Your task to perform on an android device: Do I have any events this weekend? Image 0: 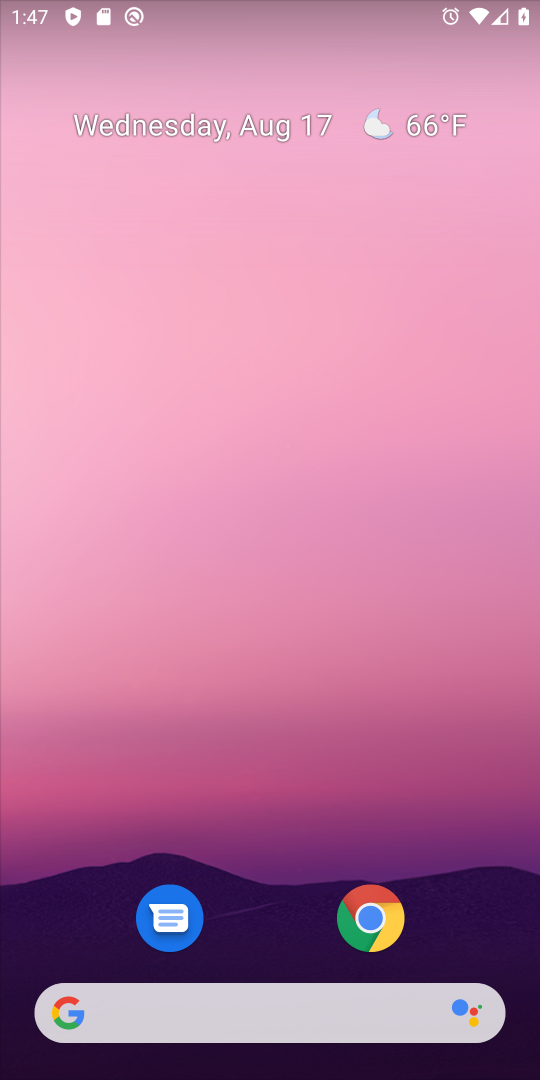
Step 0: drag from (261, 998) to (2, 332)
Your task to perform on an android device: Do I have any events this weekend? Image 1: 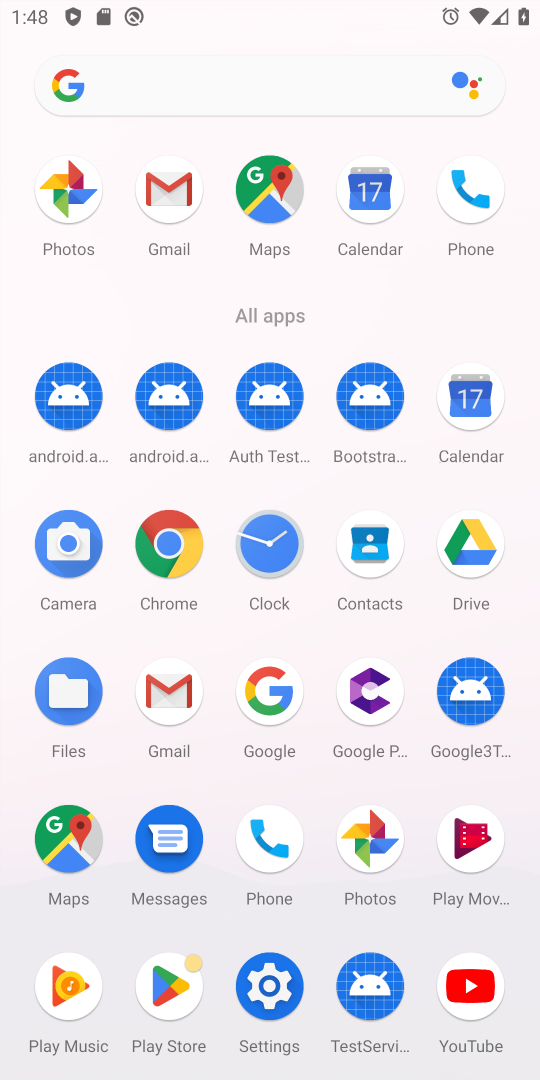
Step 1: click (453, 411)
Your task to perform on an android device: Do I have any events this weekend? Image 2: 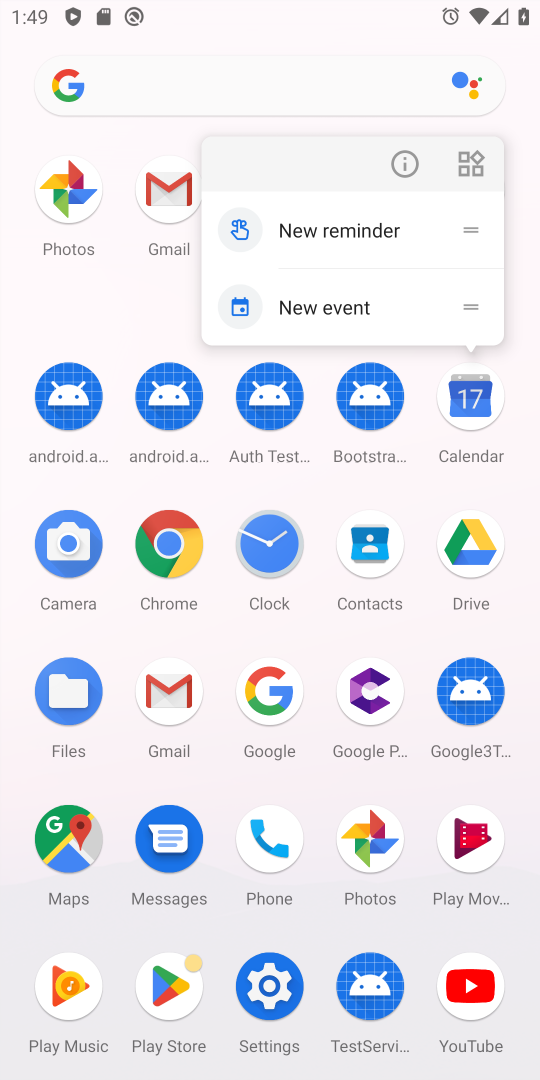
Step 2: click (452, 431)
Your task to perform on an android device: Do I have any events this weekend? Image 3: 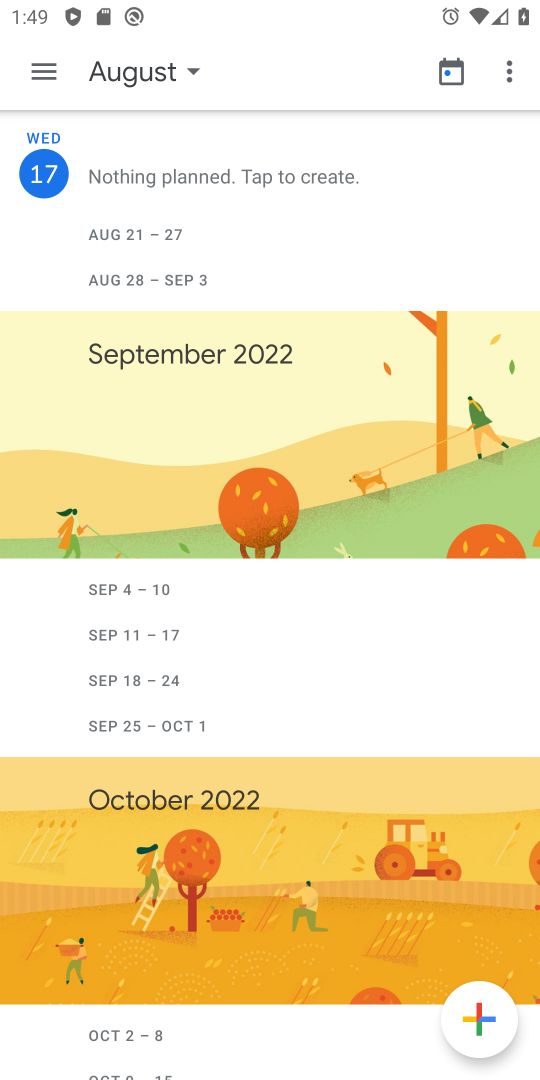
Step 3: click (40, 85)
Your task to perform on an android device: Do I have any events this weekend? Image 4: 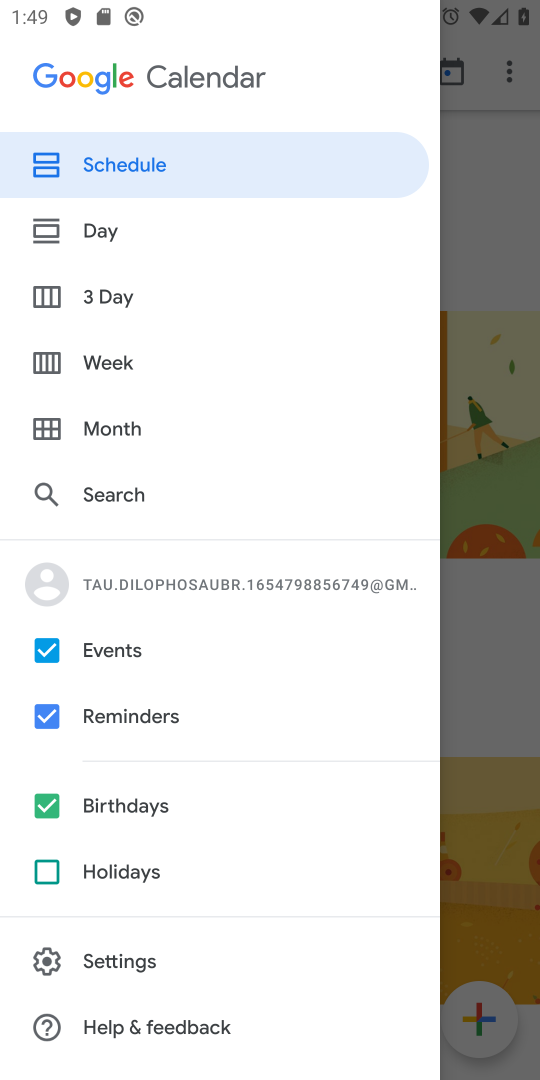
Step 4: click (118, 361)
Your task to perform on an android device: Do I have any events this weekend? Image 5: 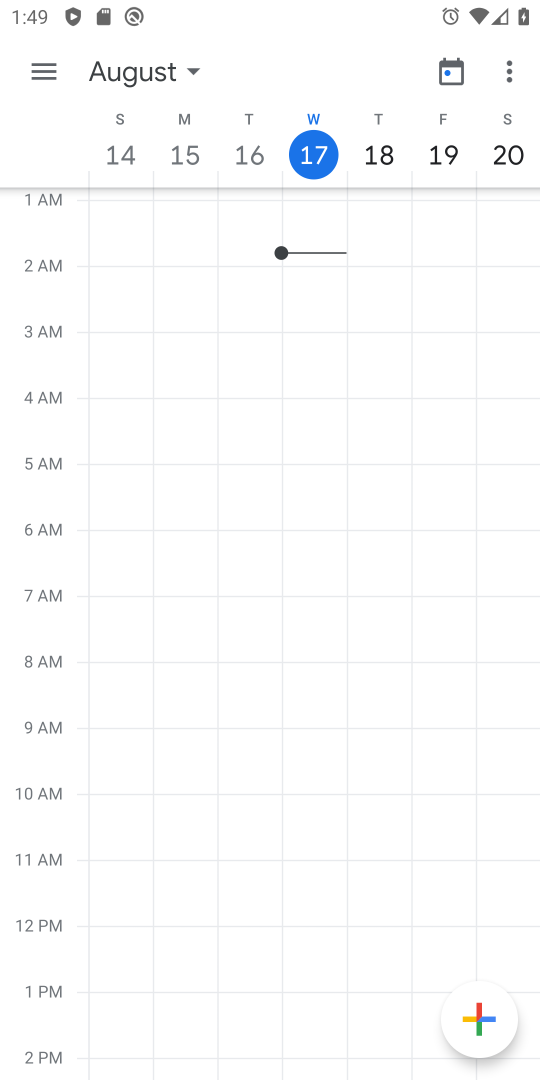
Step 5: task complete